Your task to perform on an android device: Open calendar and show me the second week of next month Image 0: 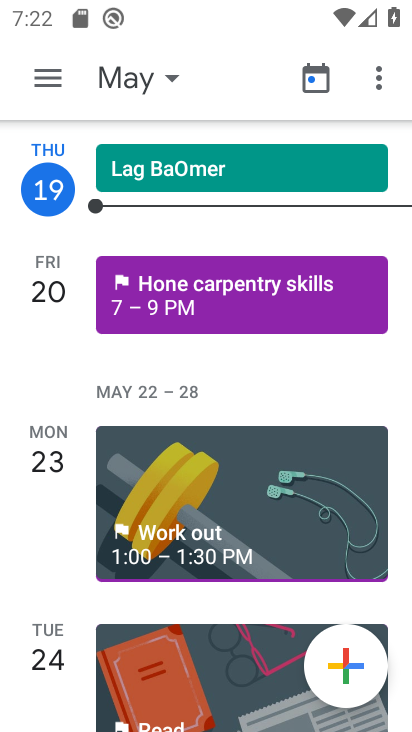
Step 0: press home button
Your task to perform on an android device: Open calendar and show me the second week of next month Image 1: 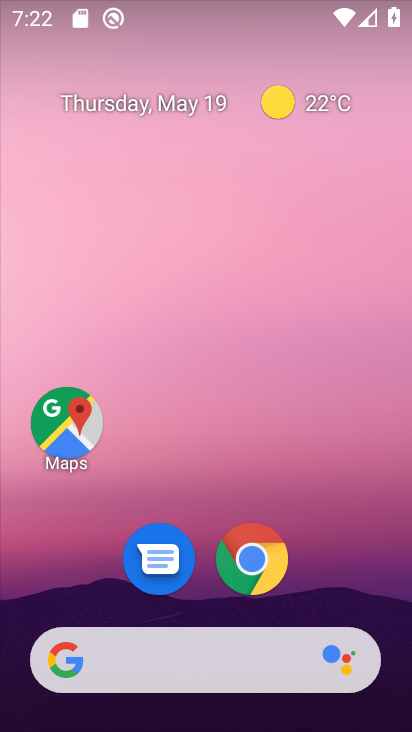
Step 1: drag from (214, 594) to (183, 29)
Your task to perform on an android device: Open calendar and show me the second week of next month Image 2: 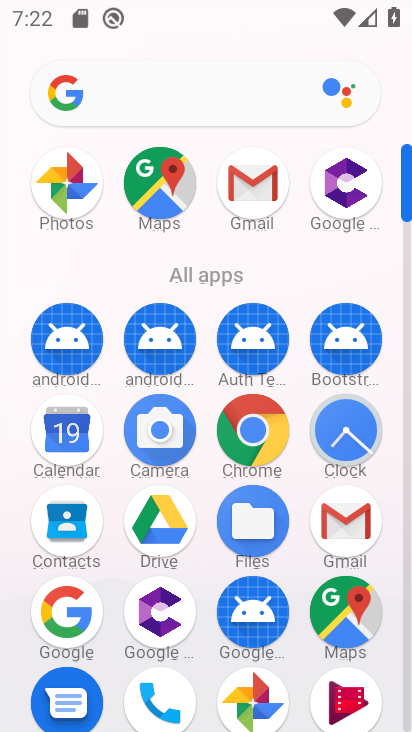
Step 2: click (57, 436)
Your task to perform on an android device: Open calendar and show me the second week of next month Image 3: 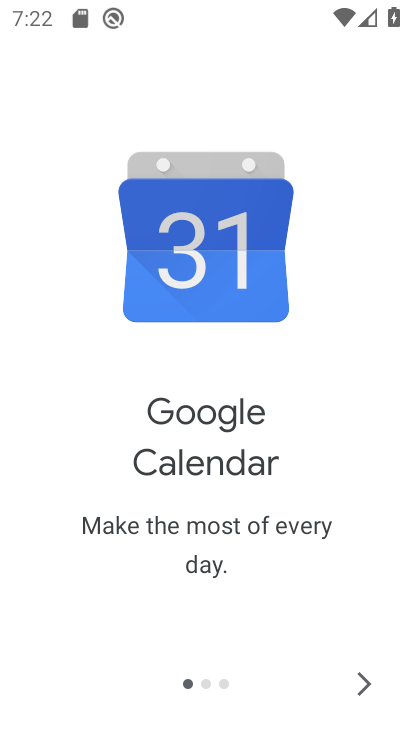
Step 3: click (368, 687)
Your task to perform on an android device: Open calendar and show me the second week of next month Image 4: 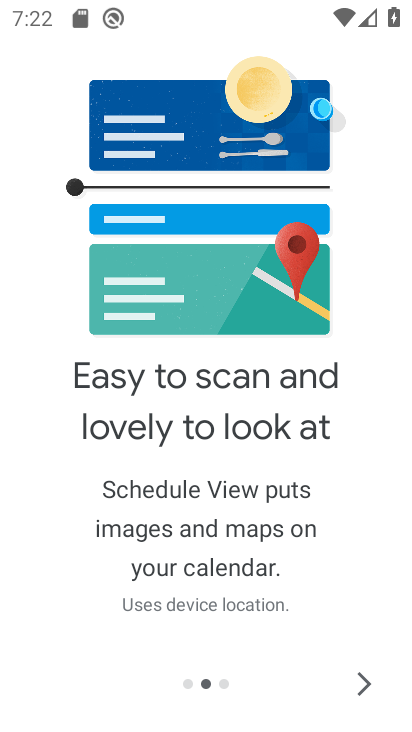
Step 4: click (368, 687)
Your task to perform on an android device: Open calendar and show me the second week of next month Image 5: 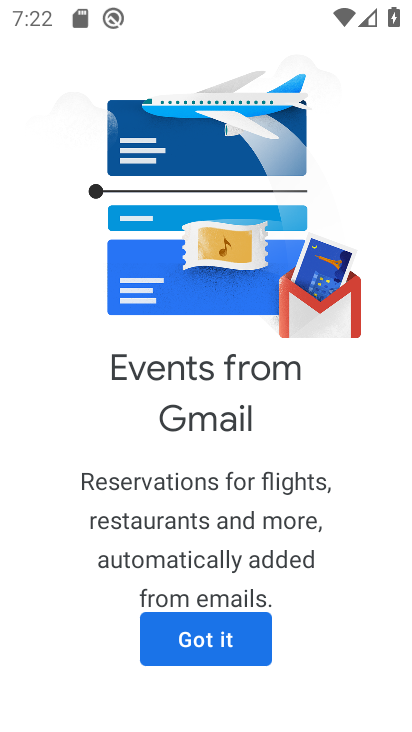
Step 5: click (145, 633)
Your task to perform on an android device: Open calendar and show me the second week of next month Image 6: 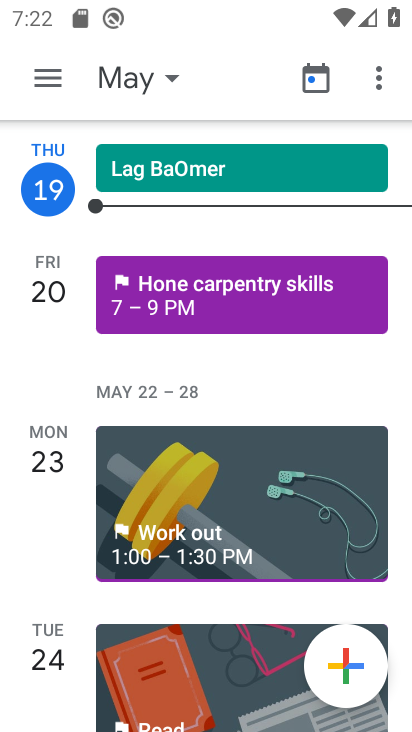
Step 6: click (136, 72)
Your task to perform on an android device: Open calendar and show me the second week of next month Image 7: 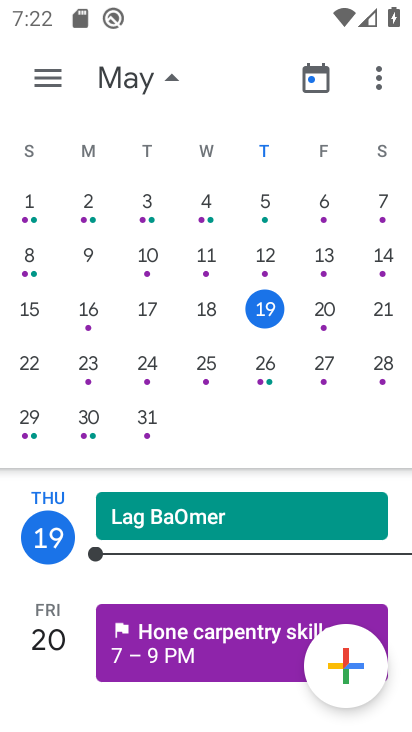
Step 7: drag from (382, 335) to (6, 368)
Your task to perform on an android device: Open calendar and show me the second week of next month Image 8: 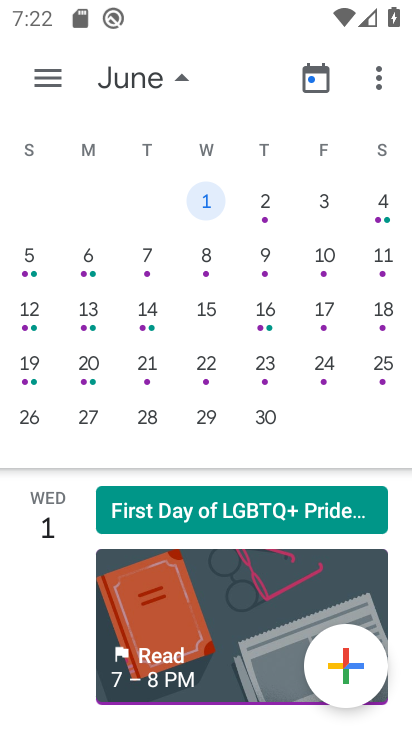
Step 8: click (32, 265)
Your task to perform on an android device: Open calendar and show me the second week of next month Image 9: 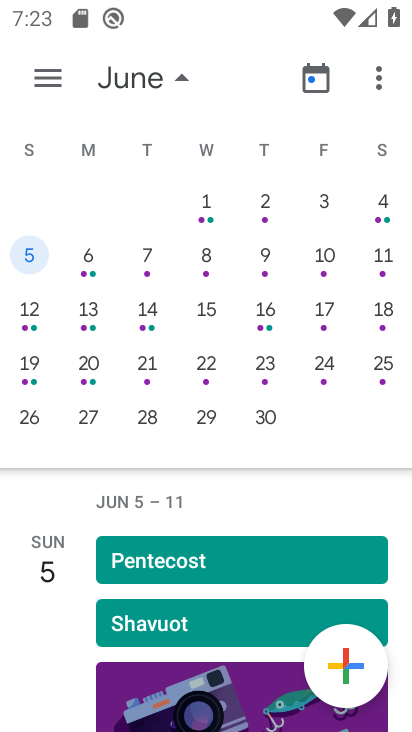
Step 9: task complete